Your task to perform on an android device: Open ESPN.com Image 0: 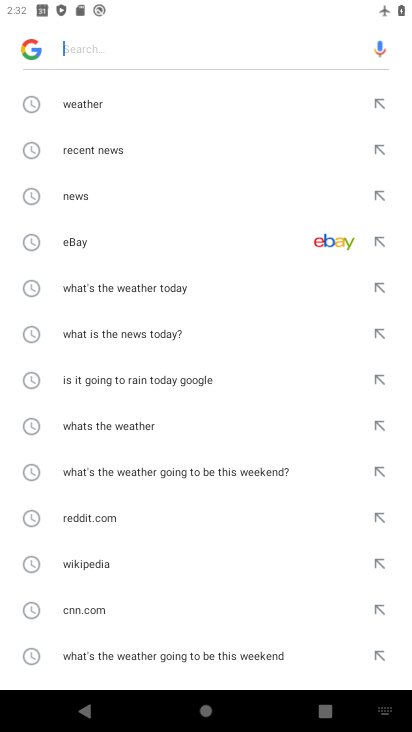
Step 0: press back button
Your task to perform on an android device: Open ESPN.com Image 1: 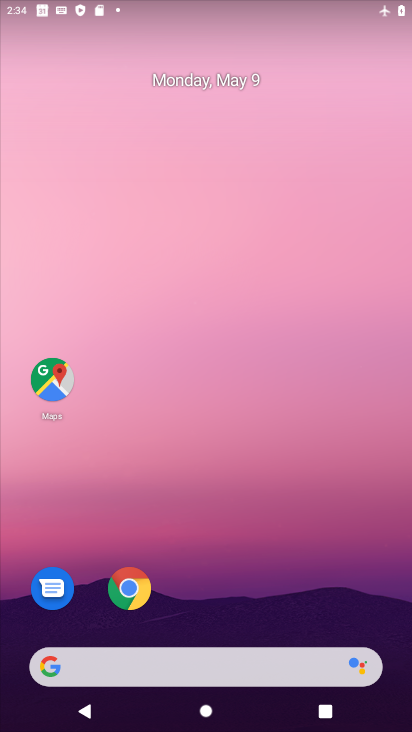
Step 1: drag from (274, 552) to (185, 63)
Your task to perform on an android device: Open ESPN.com Image 2: 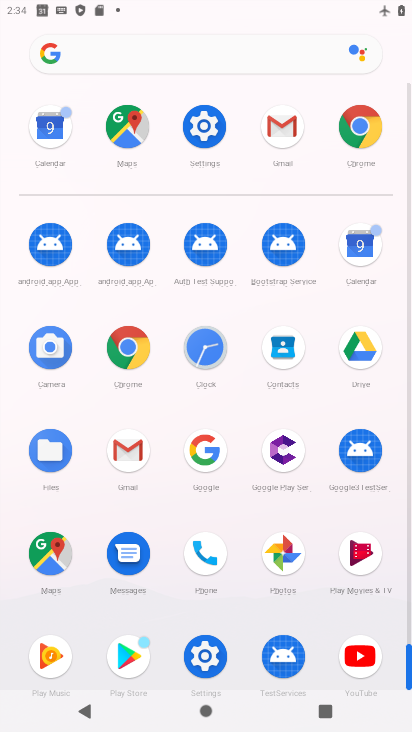
Step 2: click (371, 129)
Your task to perform on an android device: Open ESPN.com Image 3: 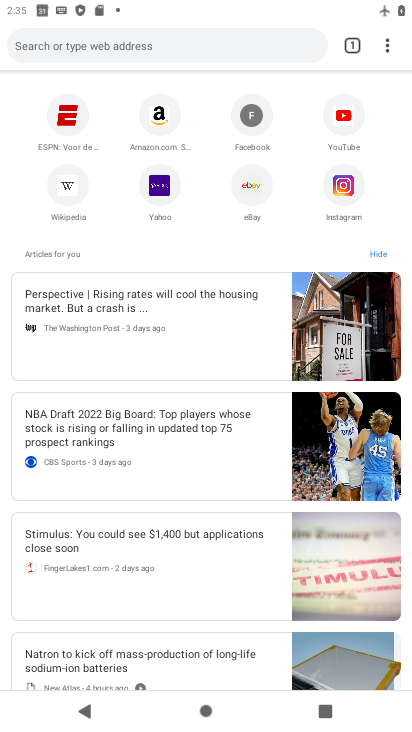
Step 3: click (64, 118)
Your task to perform on an android device: Open ESPN.com Image 4: 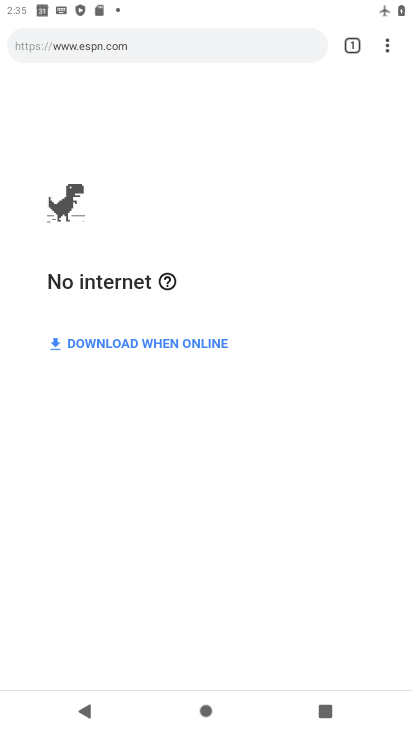
Step 4: task complete